Your task to perform on an android device: Search for sushi restaurants on Maps Image 0: 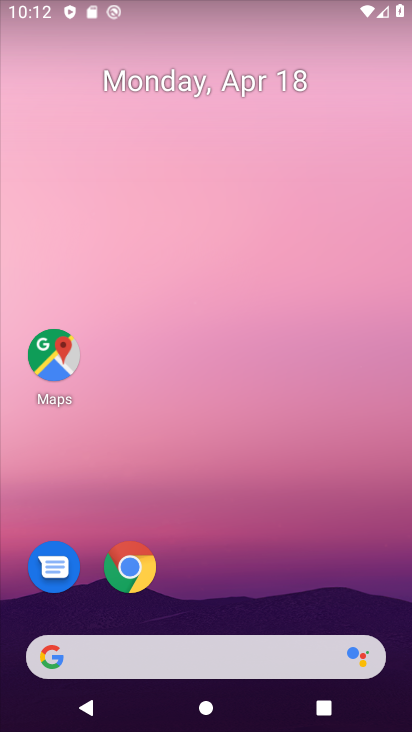
Step 0: click (51, 364)
Your task to perform on an android device: Search for sushi restaurants on Maps Image 1: 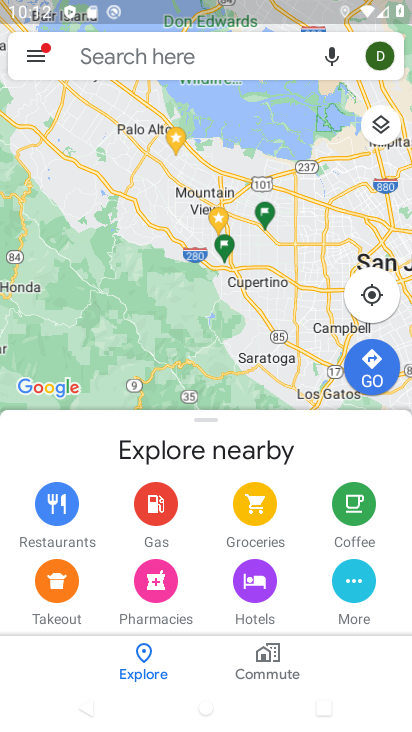
Step 1: click (212, 58)
Your task to perform on an android device: Search for sushi restaurants on Maps Image 2: 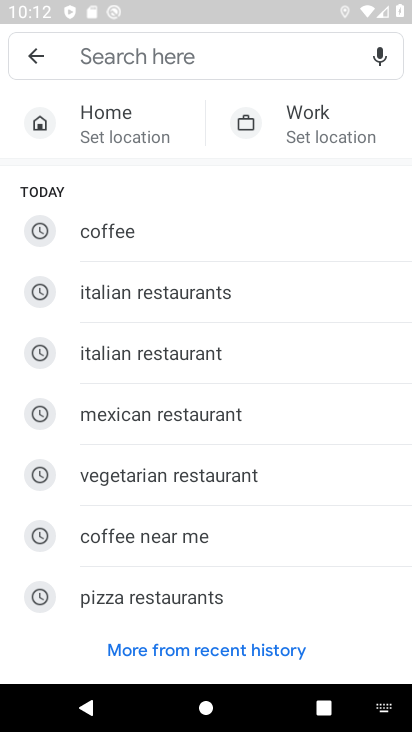
Step 2: type "sushi restaurants"
Your task to perform on an android device: Search for sushi restaurants on Maps Image 3: 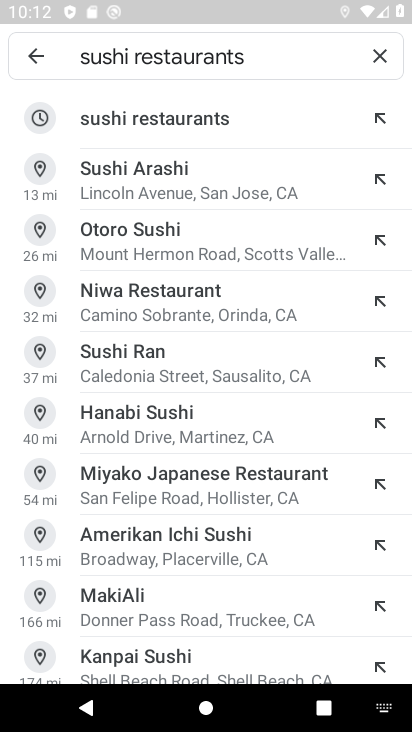
Step 3: click (47, 118)
Your task to perform on an android device: Search for sushi restaurants on Maps Image 4: 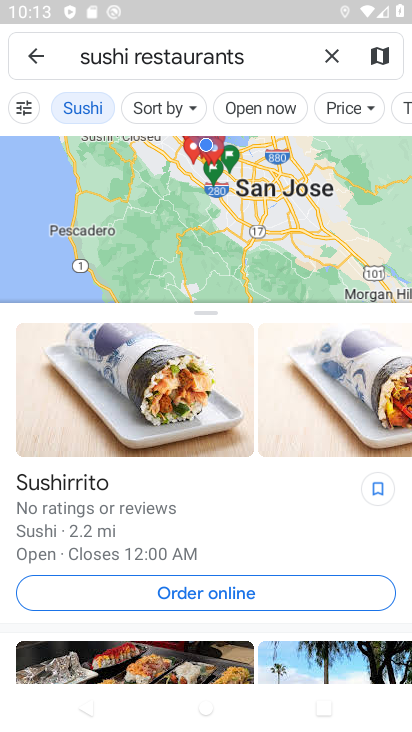
Step 4: task complete